Your task to perform on an android device: delete browsing data in the chrome app Image 0: 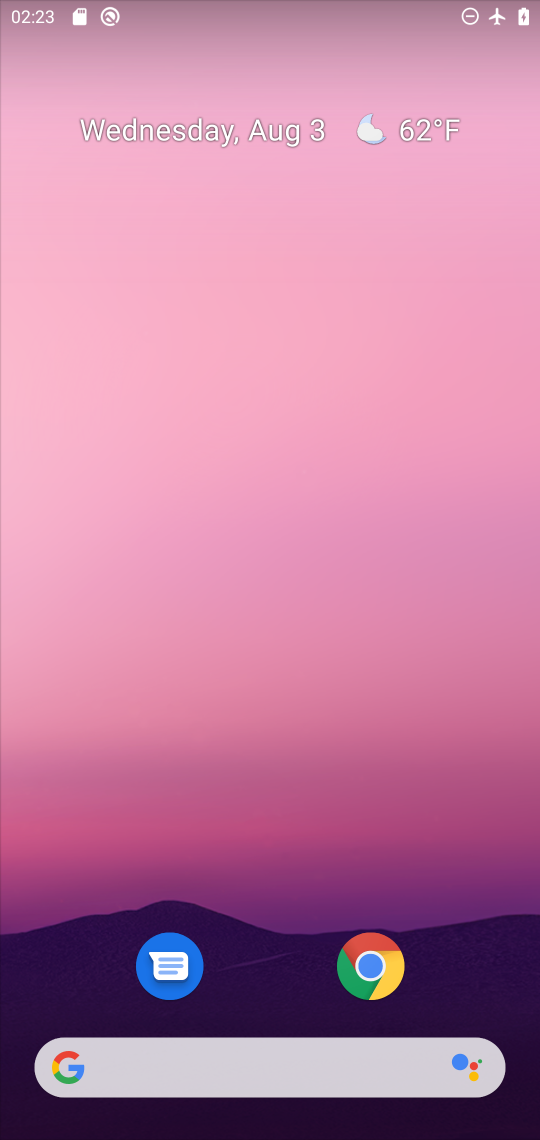
Step 0: click (370, 979)
Your task to perform on an android device: delete browsing data in the chrome app Image 1: 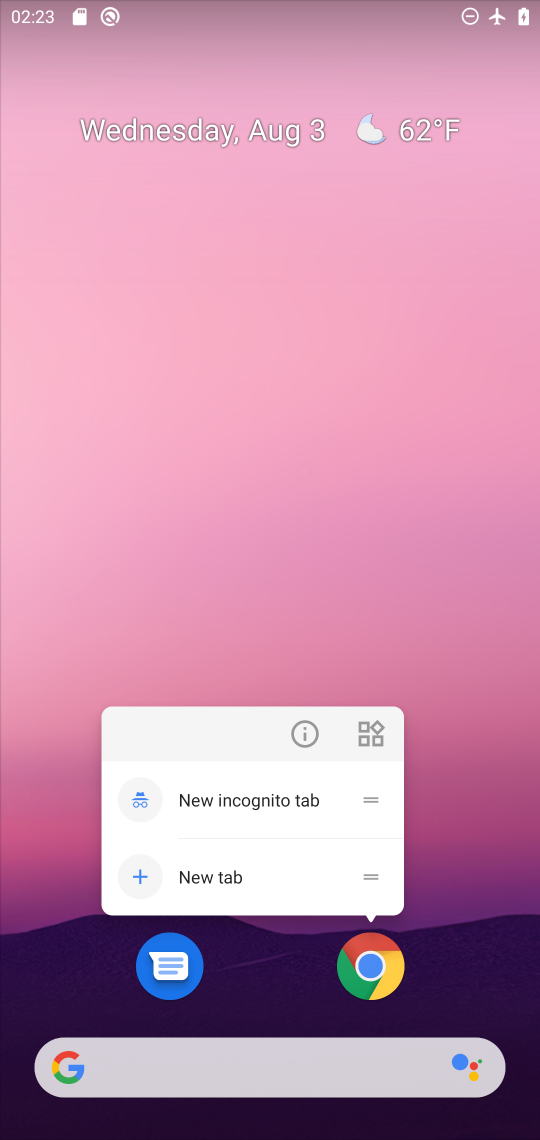
Step 1: click (373, 970)
Your task to perform on an android device: delete browsing data in the chrome app Image 2: 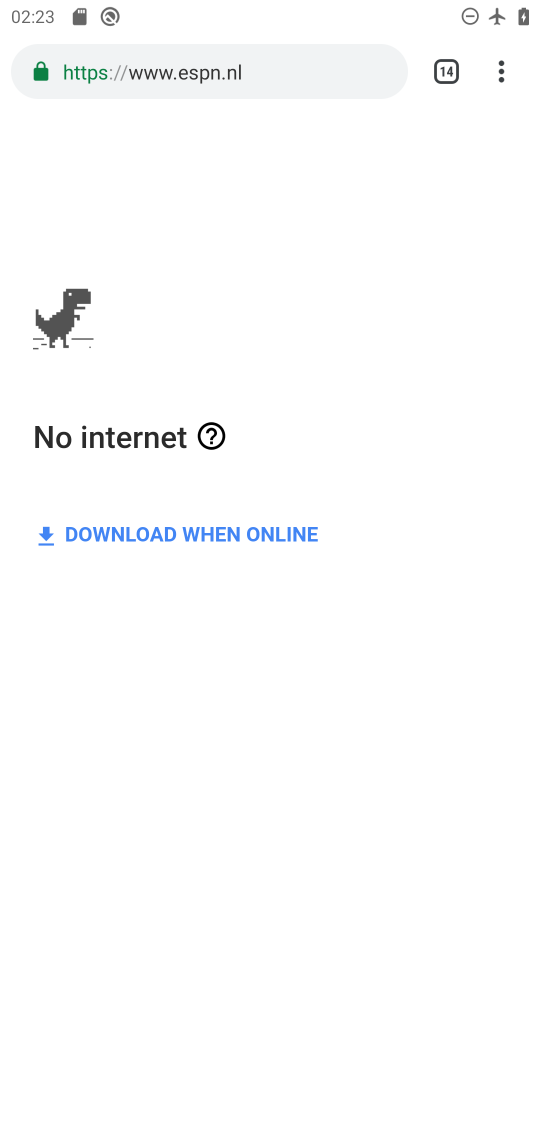
Step 2: click (512, 60)
Your task to perform on an android device: delete browsing data in the chrome app Image 3: 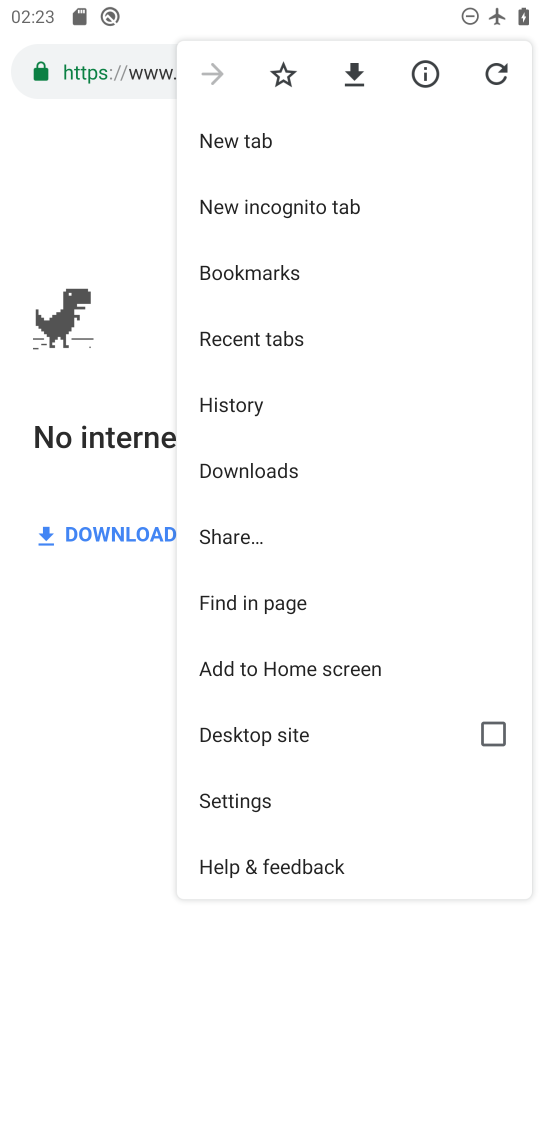
Step 3: click (267, 397)
Your task to perform on an android device: delete browsing data in the chrome app Image 4: 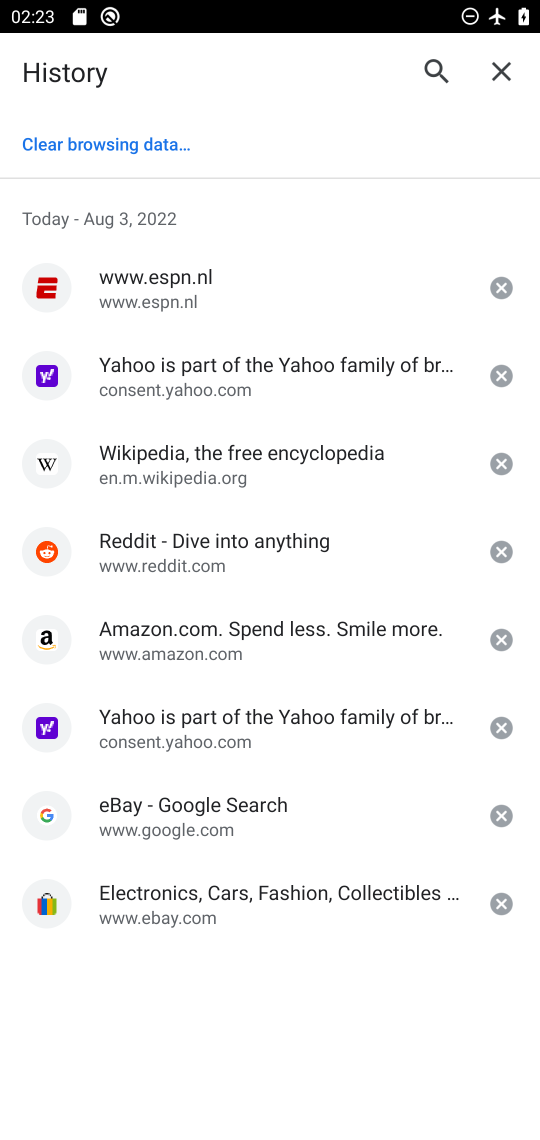
Step 4: click (154, 141)
Your task to perform on an android device: delete browsing data in the chrome app Image 5: 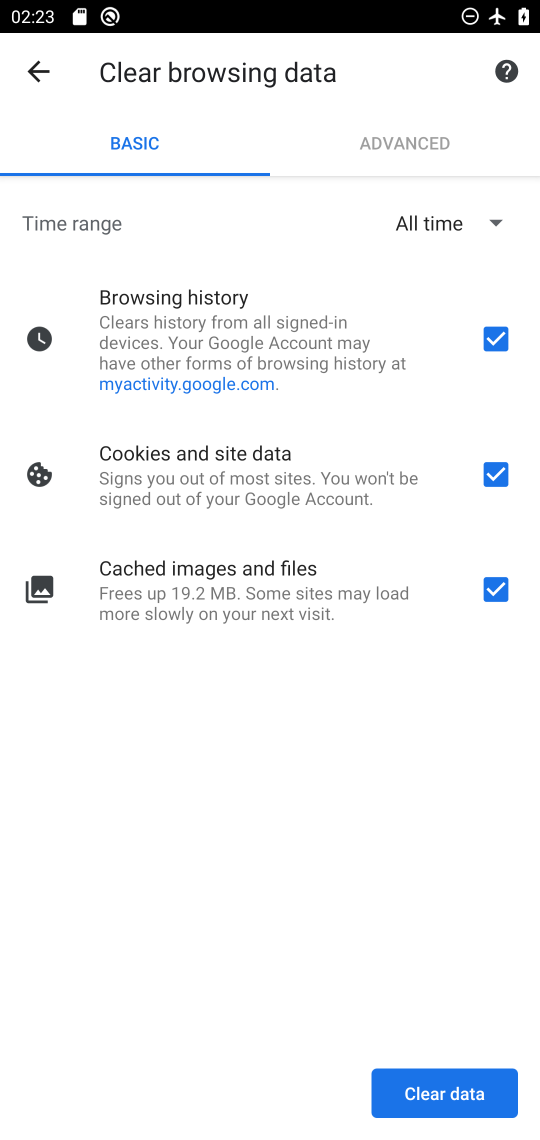
Step 5: click (463, 1076)
Your task to perform on an android device: delete browsing data in the chrome app Image 6: 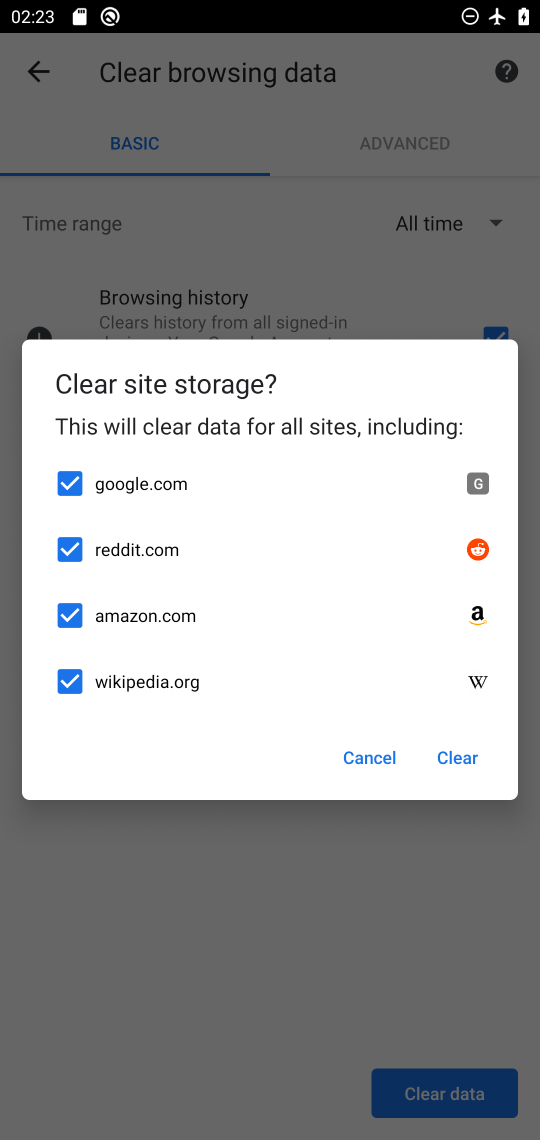
Step 6: click (442, 761)
Your task to perform on an android device: delete browsing data in the chrome app Image 7: 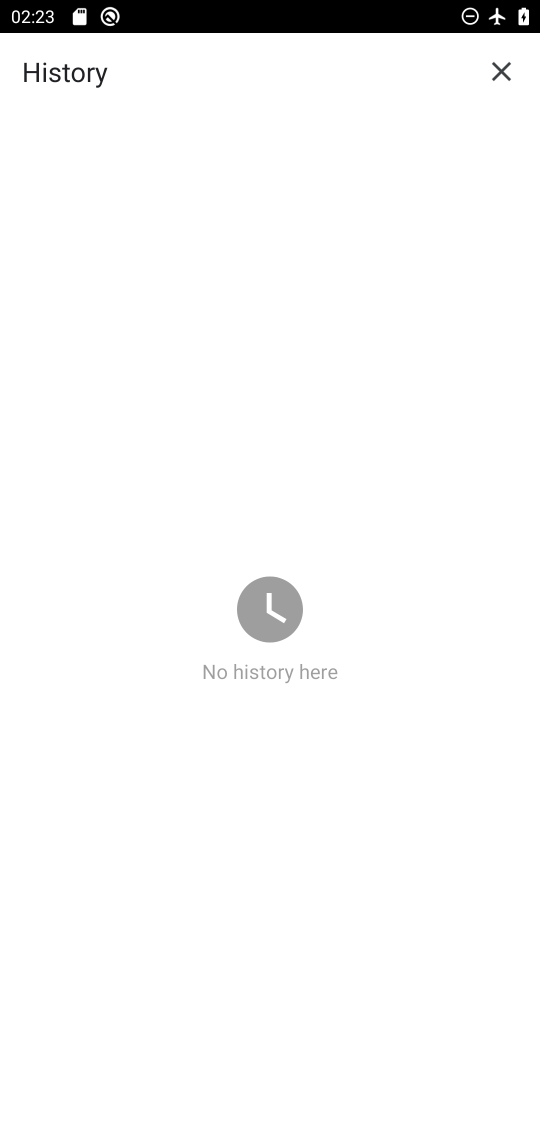
Step 7: task complete